Your task to perform on an android device: Clear the cart on bestbuy.com. Search for macbook pro 13 inch on bestbuy.com, select the first entry, add it to the cart, then select checkout. Image 0: 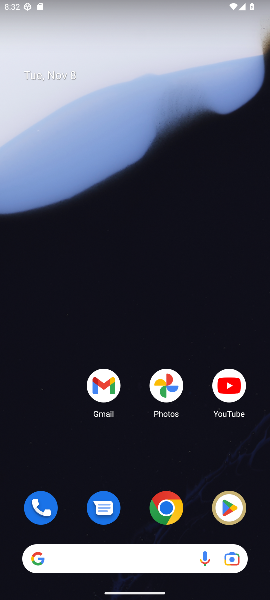
Step 0: click (178, 511)
Your task to perform on an android device: Clear the cart on bestbuy.com. Search for macbook pro 13 inch on bestbuy.com, select the first entry, add it to the cart, then select checkout. Image 1: 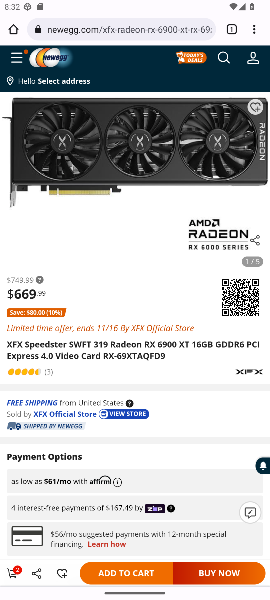
Step 1: click (83, 26)
Your task to perform on an android device: Clear the cart on bestbuy.com. Search for macbook pro 13 inch on bestbuy.com, select the first entry, add it to the cart, then select checkout. Image 2: 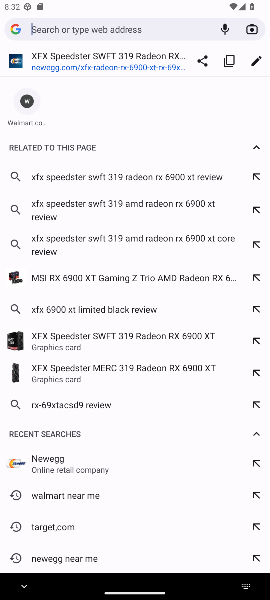
Step 2: type "bestbuy"
Your task to perform on an android device: Clear the cart on bestbuy.com. Search for macbook pro 13 inch on bestbuy.com, select the first entry, add it to the cart, then select checkout. Image 3: 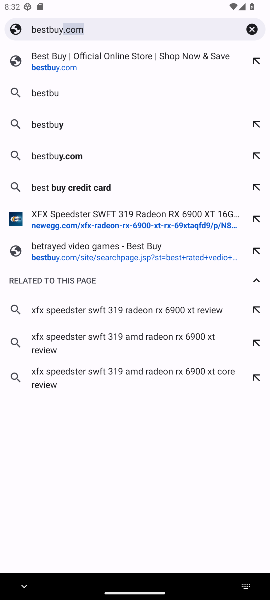
Step 3: type ""
Your task to perform on an android device: Clear the cart on bestbuy.com. Search for macbook pro 13 inch on bestbuy.com, select the first entry, add it to the cart, then select checkout. Image 4: 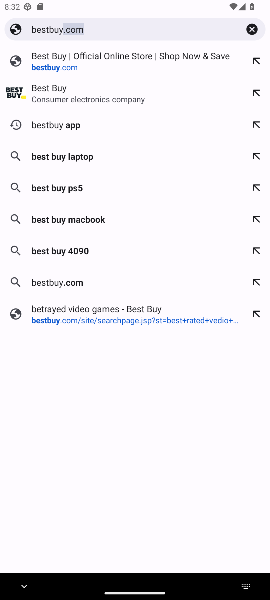
Step 4: click (37, 92)
Your task to perform on an android device: Clear the cart on bestbuy.com. Search for macbook pro 13 inch on bestbuy.com, select the first entry, add it to the cart, then select checkout. Image 5: 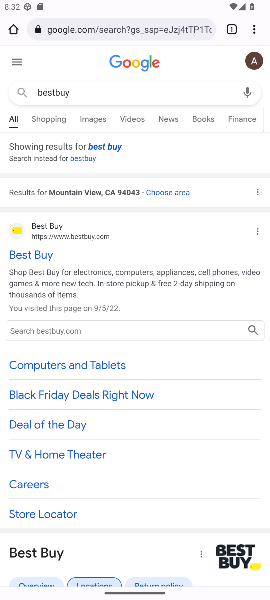
Step 5: click (7, 258)
Your task to perform on an android device: Clear the cart on bestbuy.com. Search for macbook pro 13 inch on bestbuy.com, select the first entry, add it to the cart, then select checkout. Image 6: 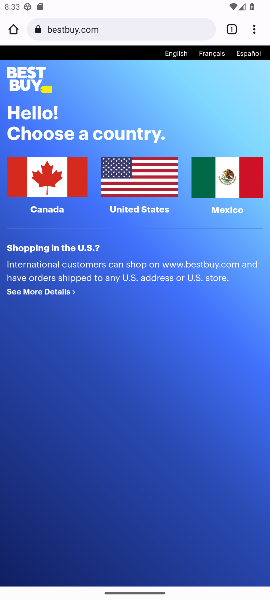
Step 6: click (32, 179)
Your task to perform on an android device: Clear the cart on bestbuy.com. Search for macbook pro 13 inch on bestbuy.com, select the first entry, add it to the cart, then select checkout. Image 7: 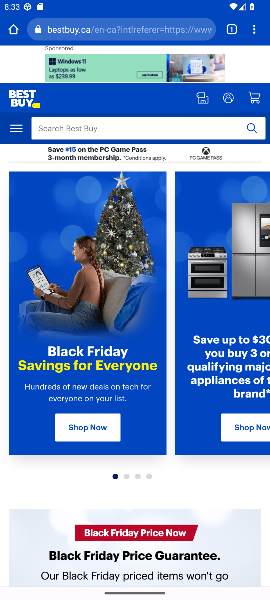
Step 7: click (163, 128)
Your task to perform on an android device: Clear the cart on bestbuy.com. Search for macbook pro 13 inch on bestbuy.com, select the first entry, add it to the cart, then select checkout. Image 8: 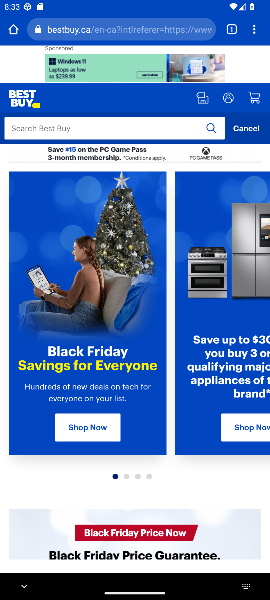
Step 8: type "macbook pro 13"
Your task to perform on an android device: Clear the cart on bestbuy.com. Search for macbook pro 13 inch on bestbuy.com, select the first entry, add it to the cart, then select checkout. Image 9: 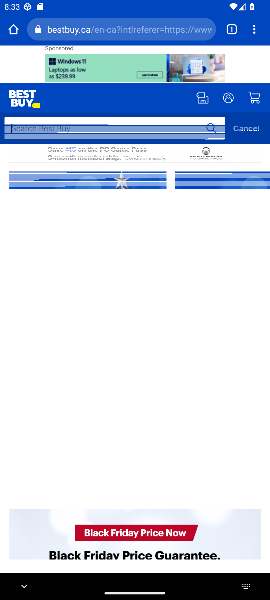
Step 9: type ""
Your task to perform on an android device: Clear the cart on bestbuy.com. Search for macbook pro 13 inch on bestbuy.com, select the first entry, add it to the cart, then select checkout. Image 10: 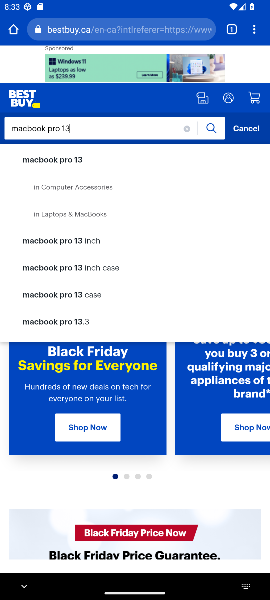
Step 10: click (38, 157)
Your task to perform on an android device: Clear the cart on bestbuy.com. Search for macbook pro 13 inch on bestbuy.com, select the first entry, add it to the cart, then select checkout. Image 11: 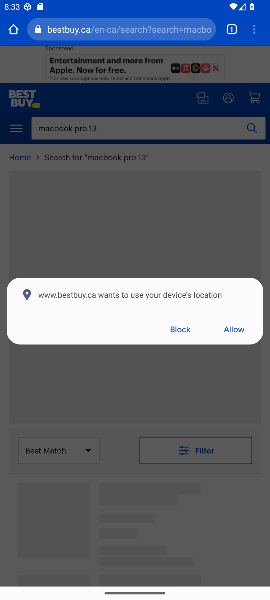
Step 11: click (231, 333)
Your task to perform on an android device: Clear the cart on bestbuy.com. Search for macbook pro 13 inch on bestbuy.com, select the first entry, add it to the cart, then select checkout. Image 12: 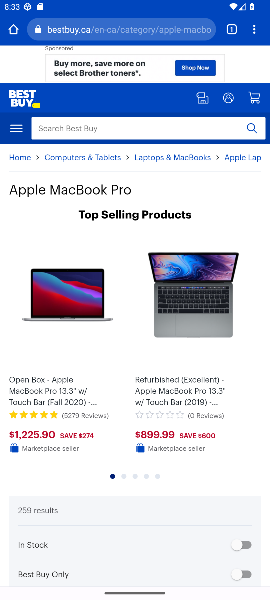
Step 12: click (177, 124)
Your task to perform on an android device: Clear the cart on bestbuy.com. Search for macbook pro 13 inch on bestbuy.com, select the first entry, add it to the cart, then select checkout. Image 13: 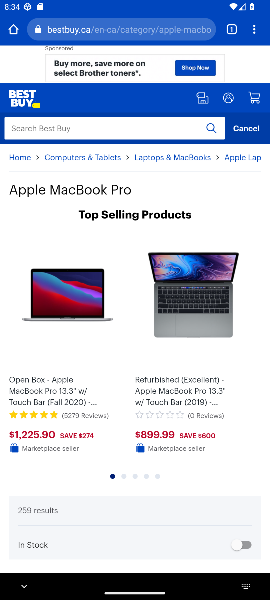
Step 13: type "macbook pro"
Your task to perform on an android device: Clear the cart on bestbuy.com. Search for macbook pro 13 inch on bestbuy.com, select the first entry, add it to the cart, then select checkout. Image 14: 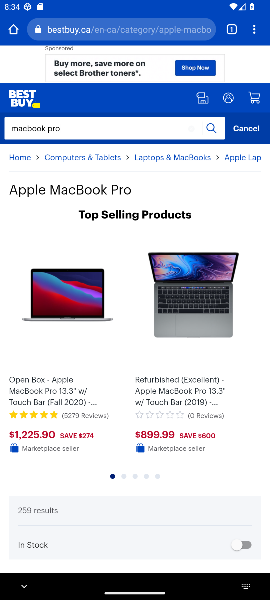
Step 14: type ""
Your task to perform on an android device: Clear the cart on bestbuy.com. Search for macbook pro 13 inch on bestbuy.com, select the first entry, add it to the cart, then select checkout. Image 15: 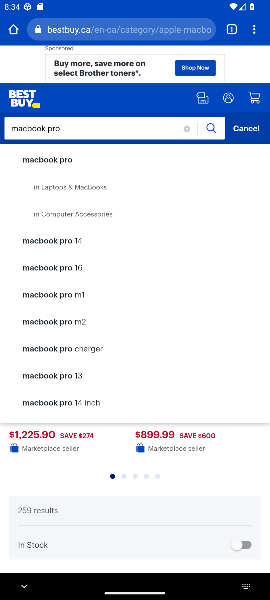
Step 15: click (52, 157)
Your task to perform on an android device: Clear the cart on bestbuy.com. Search for macbook pro 13 inch on bestbuy.com, select the first entry, add it to the cart, then select checkout. Image 16: 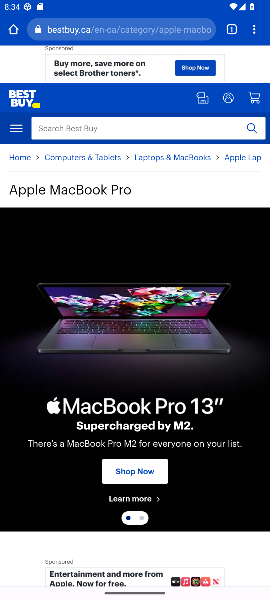
Step 16: click (131, 472)
Your task to perform on an android device: Clear the cart on bestbuy.com. Search for macbook pro 13 inch on bestbuy.com, select the first entry, add it to the cart, then select checkout. Image 17: 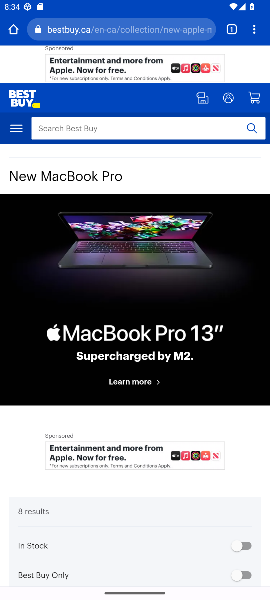
Step 17: click (81, 128)
Your task to perform on an android device: Clear the cart on bestbuy.com. Search for macbook pro 13 inch on bestbuy.com, select the first entry, add it to the cart, then select checkout. Image 18: 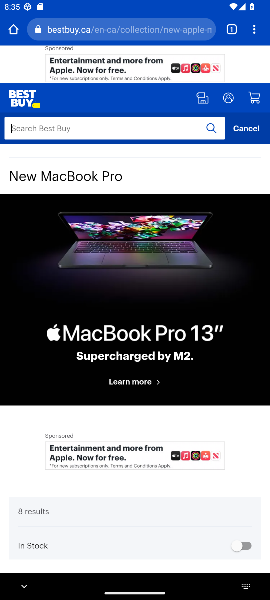
Step 18: type "macbook pro 13"
Your task to perform on an android device: Clear the cart on bestbuy.com. Search for macbook pro 13 inch on bestbuy.com, select the first entry, add it to the cart, then select checkout. Image 19: 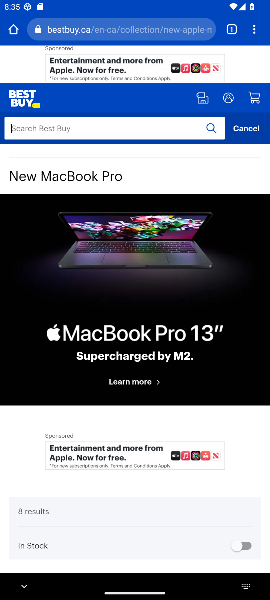
Step 19: type ""
Your task to perform on an android device: Clear the cart on bestbuy.com. Search for macbook pro 13 inch on bestbuy.com, select the first entry, add it to the cart, then select checkout. Image 20: 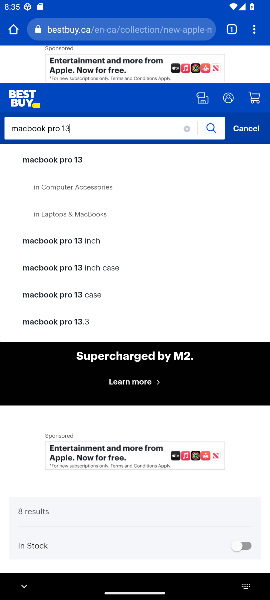
Step 20: click (53, 159)
Your task to perform on an android device: Clear the cart on bestbuy.com. Search for macbook pro 13 inch on bestbuy.com, select the first entry, add it to the cart, then select checkout. Image 21: 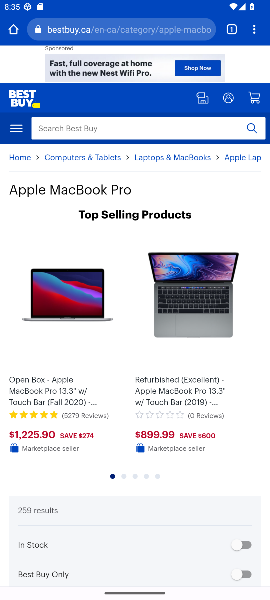
Step 21: click (52, 378)
Your task to perform on an android device: Clear the cart on bestbuy.com. Search for macbook pro 13 inch on bestbuy.com, select the first entry, add it to the cart, then select checkout. Image 22: 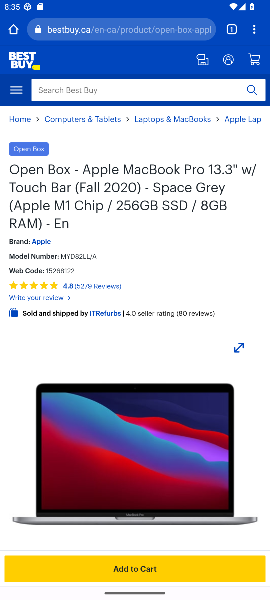
Step 22: drag from (160, 428) to (190, 288)
Your task to perform on an android device: Clear the cart on bestbuy.com. Search for macbook pro 13 inch on bestbuy.com, select the first entry, add it to the cart, then select checkout. Image 23: 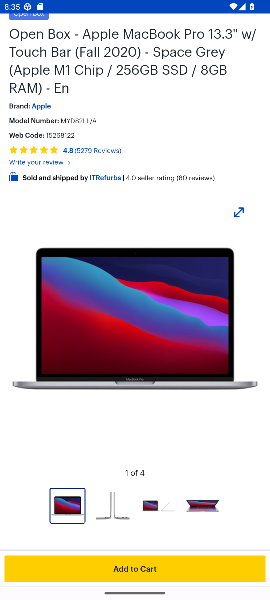
Step 23: click (126, 564)
Your task to perform on an android device: Clear the cart on bestbuy.com. Search for macbook pro 13 inch on bestbuy.com, select the first entry, add it to the cart, then select checkout. Image 24: 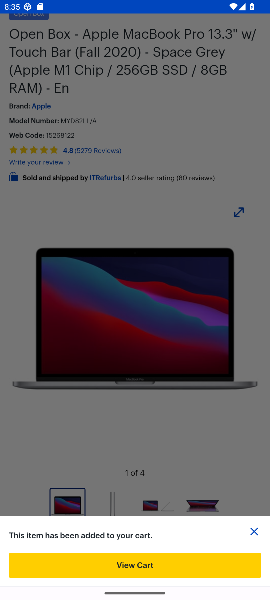
Step 24: click (129, 563)
Your task to perform on an android device: Clear the cart on bestbuy.com. Search for macbook pro 13 inch on bestbuy.com, select the first entry, add it to the cart, then select checkout. Image 25: 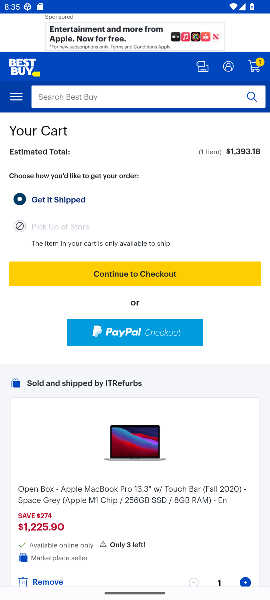
Step 25: click (125, 275)
Your task to perform on an android device: Clear the cart on bestbuy.com. Search for macbook pro 13 inch on bestbuy.com, select the first entry, add it to the cart, then select checkout. Image 26: 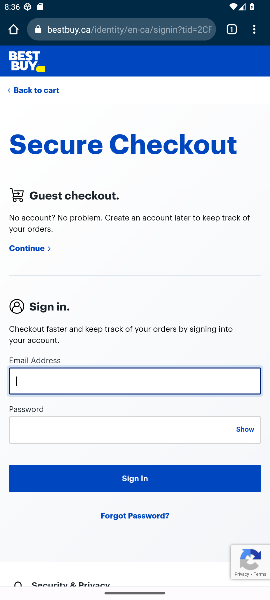
Step 26: task complete